Your task to perform on an android device: Open the map Image 0: 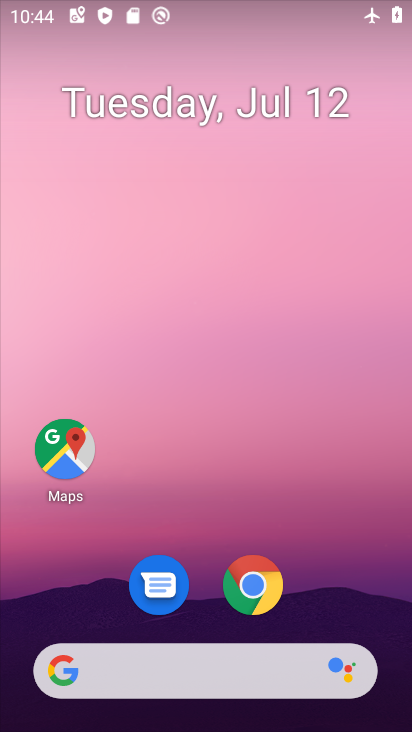
Step 0: click (65, 450)
Your task to perform on an android device: Open the map Image 1: 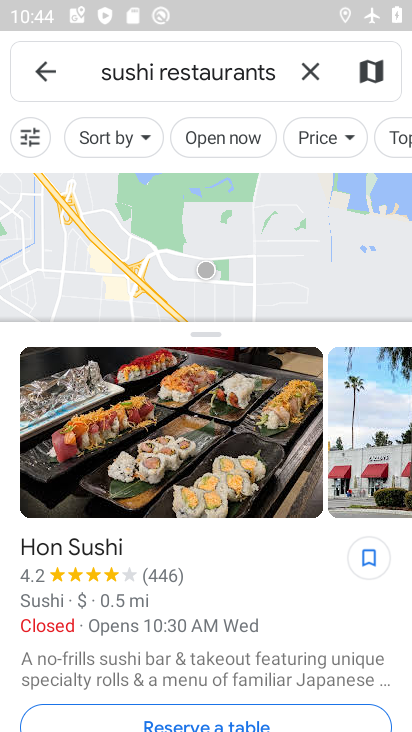
Step 1: task complete